Your task to perform on an android device: turn off airplane mode Image 0: 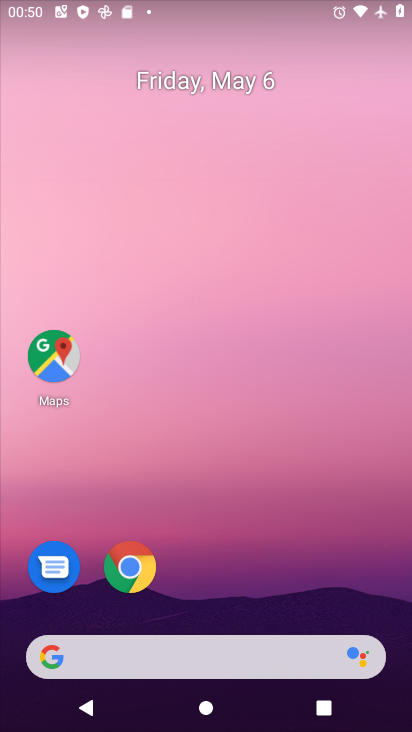
Step 0: drag from (217, 608) to (224, 138)
Your task to perform on an android device: turn off airplane mode Image 1: 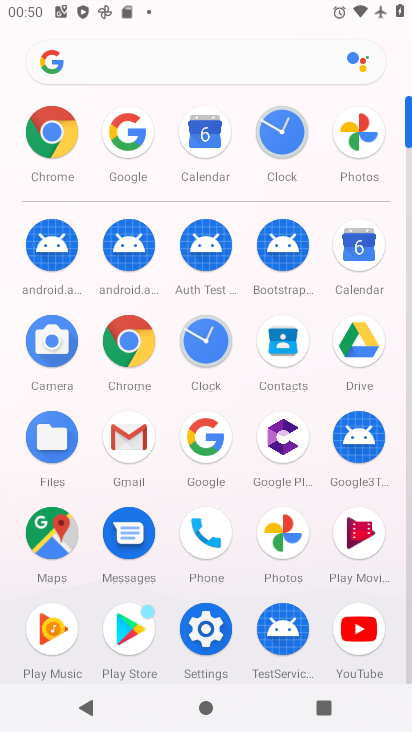
Step 1: click (201, 625)
Your task to perform on an android device: turn off airplane mode Image 2: 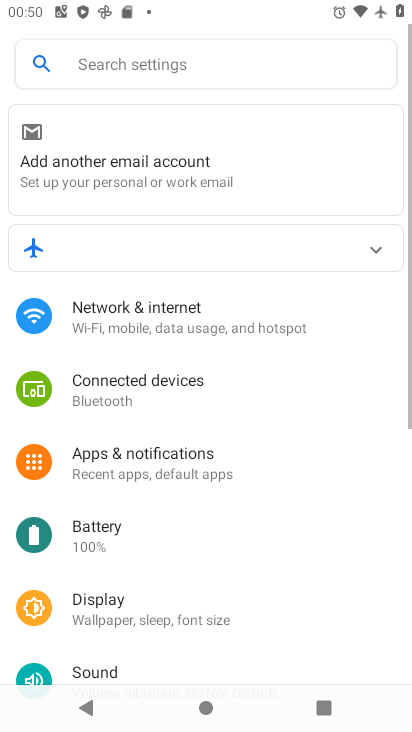
Step 2: click (142, 200)
Your task to perform on an android device: turn off airplane mode Image 3: 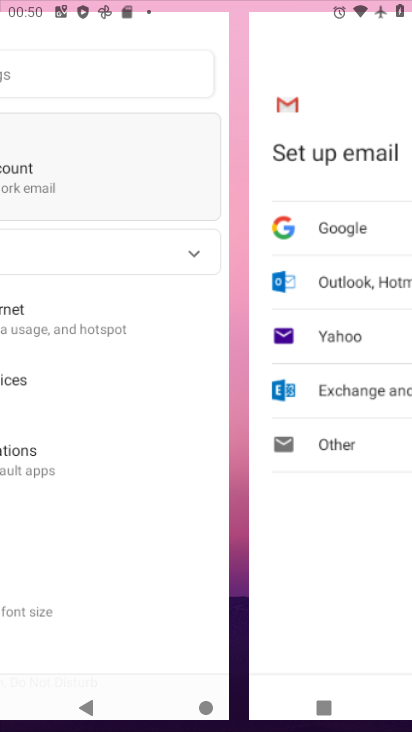
Step 3: click (136, 302)
Your task to perform on an android device: turn off airplane mode Image 4: 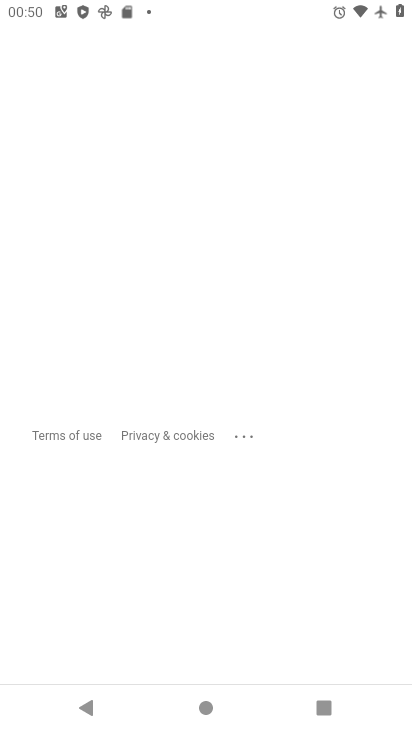
Step 4: press back button
Your task to perform on an android device: turn off airplane mode Image 5: 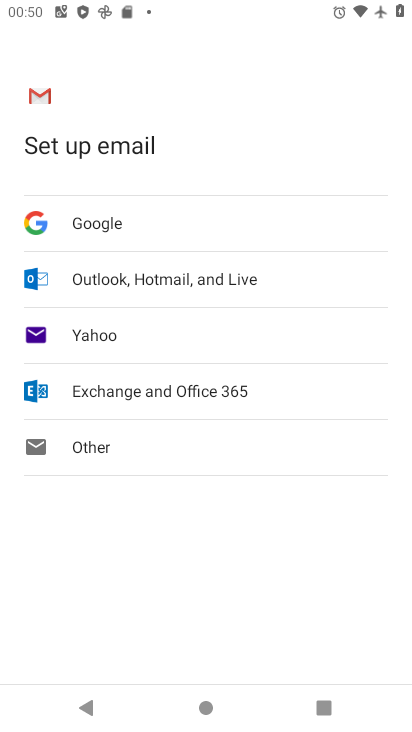
Step 5: press back button
Your task to perform on an android device: turn off airplane mode Image 6: 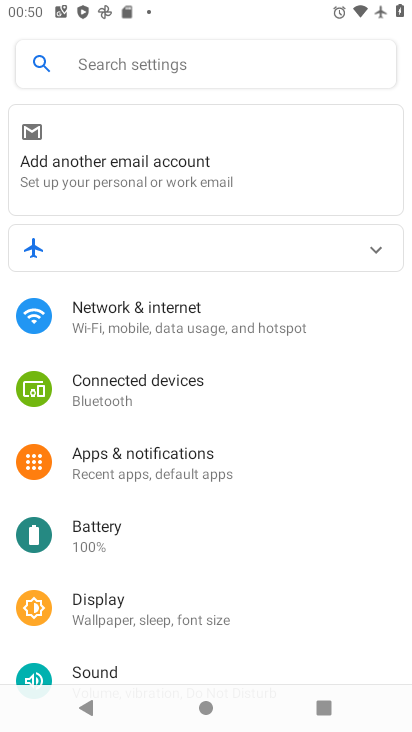
Step 6: click (188, 328)
Your task to perform on an android device: turn off airplane mode Image 7: 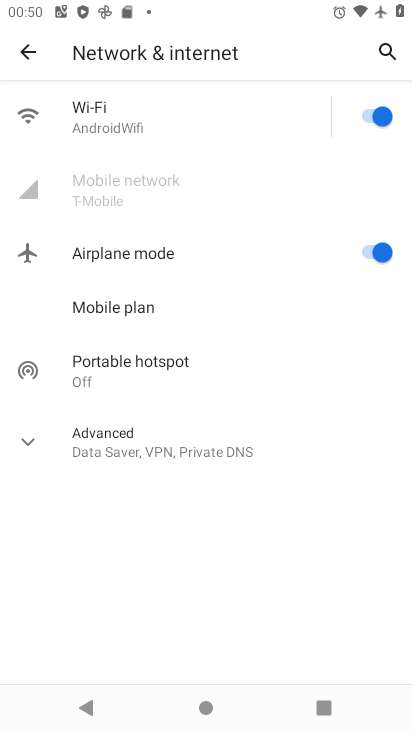
Step 7: click (369, 258)
Your task to perform on an android device: turn off airplane mode Image 8: 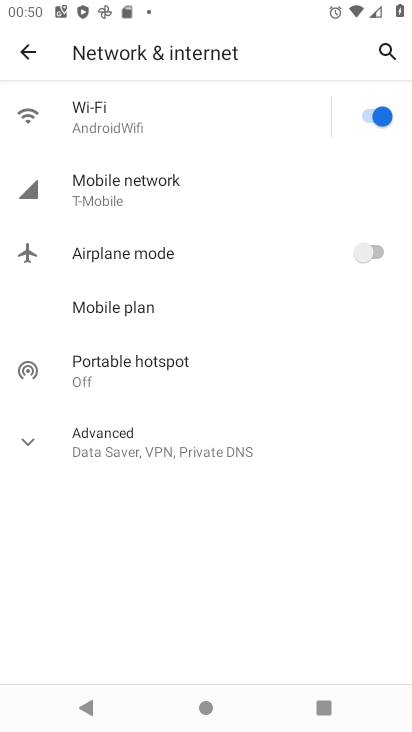
Step 8: task complete